Your task to perform on an android device: Open notification settings Image 0: 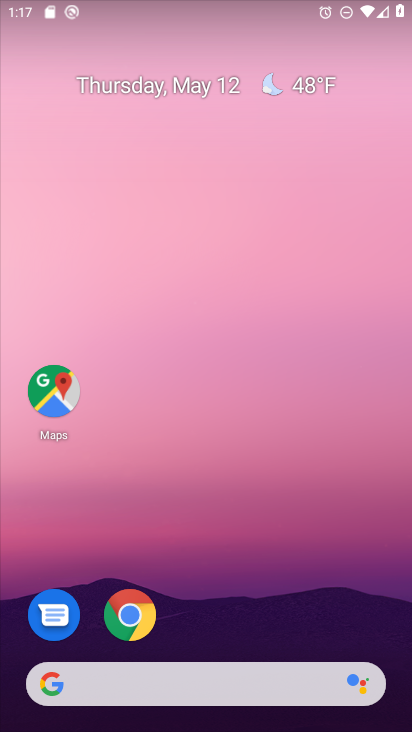
Step 0: drag from (312, 648) to (309, 1)
Your task to perform on an android device: Open notification settings Image 1: 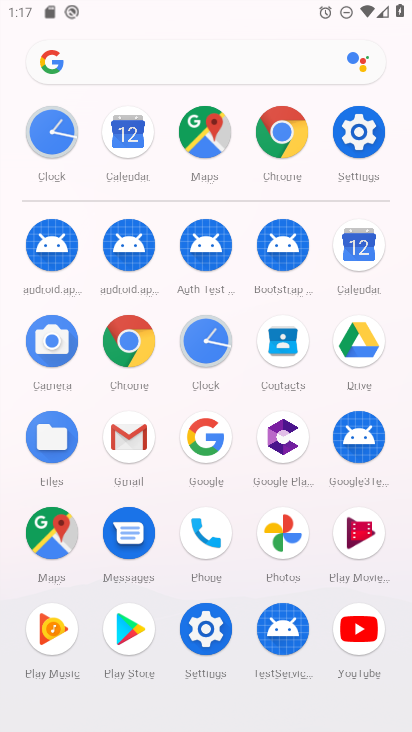
Step 1: click (374, 143)
Your task to perform on an android device: Open notification settings Image 2: 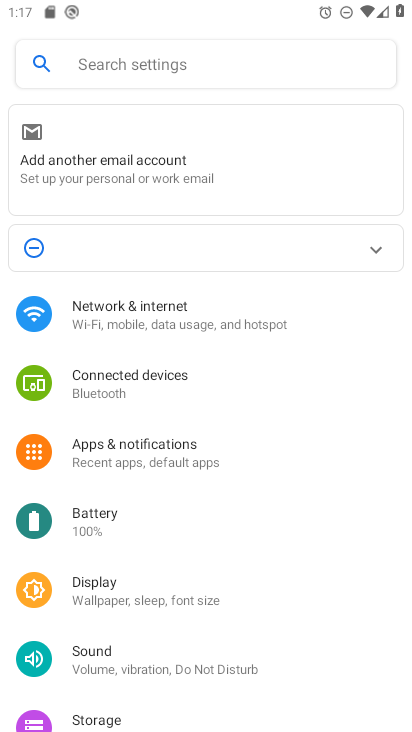
Step 2: click (209, 453)
Your task to perform on an android device: Open notification settings Image 3: 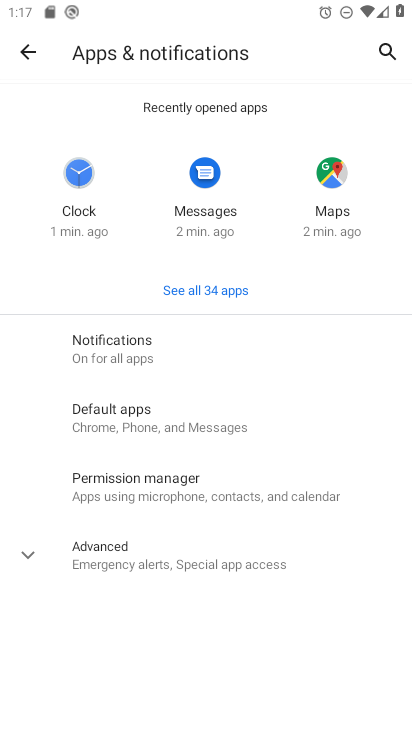
Step 3: task complete